Your task to perform on an android device: allow cookies in the chrome app Image 0: 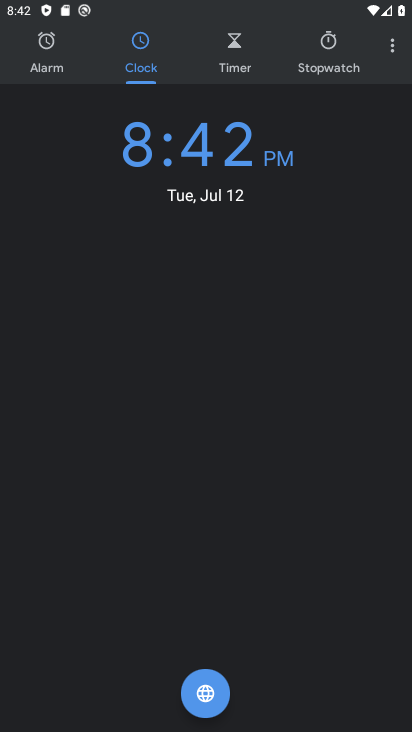
Step 0: press home button
Your task to perform on an android device: allow cookies in the chrome app Image 1: 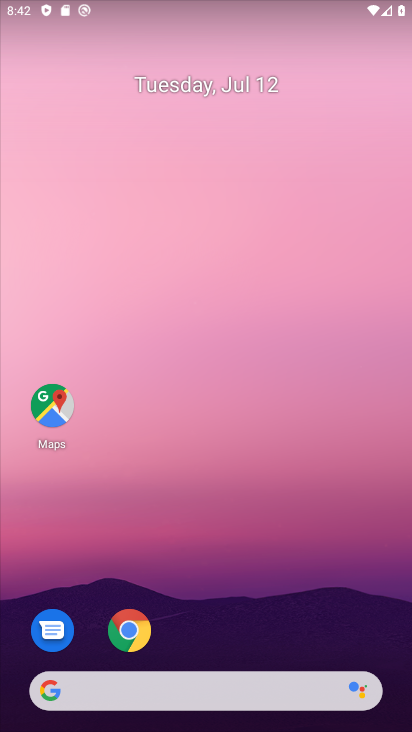
Step 1: click (134, 634)
Your task to perform on an android device: allow cookies in the chrome app Image 2: 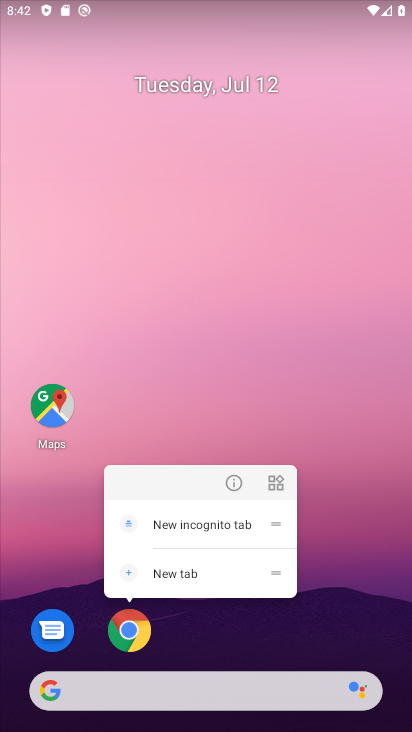
Step 2: click (127, 629)
Your task to perform on an android device: allow cookies in the chrome app Image 3: 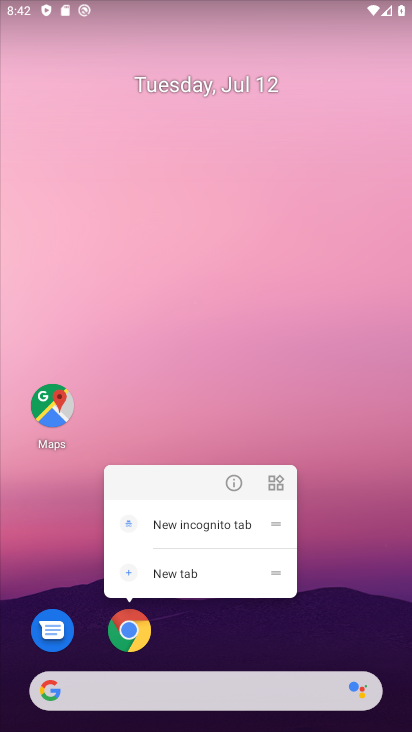
Step 3: click (134, 626)
Your task to perform on an android device: allow cookies in the chrome app Image 4: 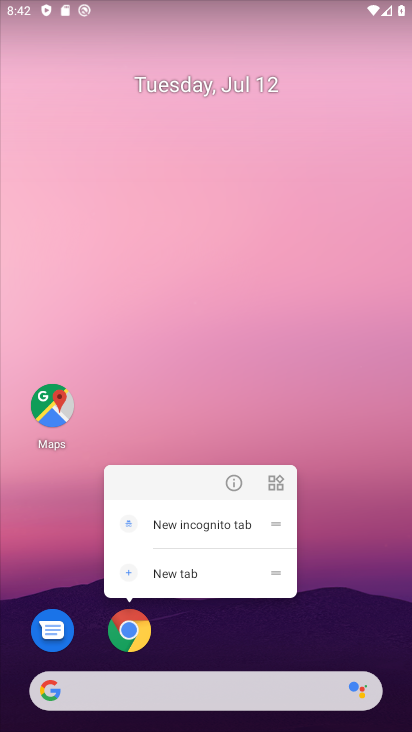
Step 4: click (134, 626)
Your task to perform on an android device: allow cookies in the chrome app Image 5: 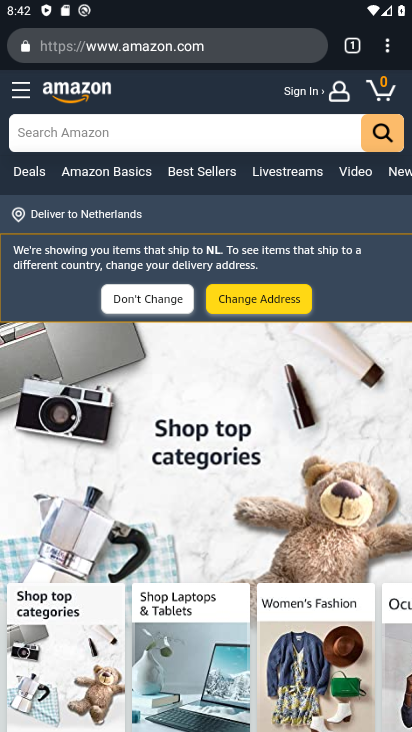
Step 5: drag from (383, 46) to (217, 556)
Your task to perform on an android device: allow cookies in the chrome app Image 6: 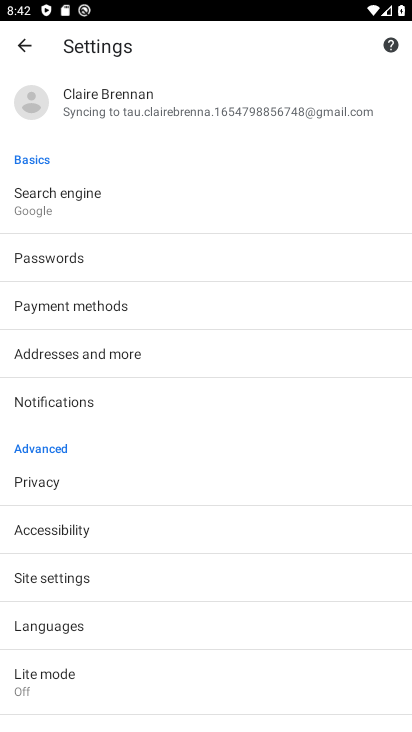
Step 6: click (66, 585)
Your task to perform on an android device: allow cookies in the chrome app Image 7: 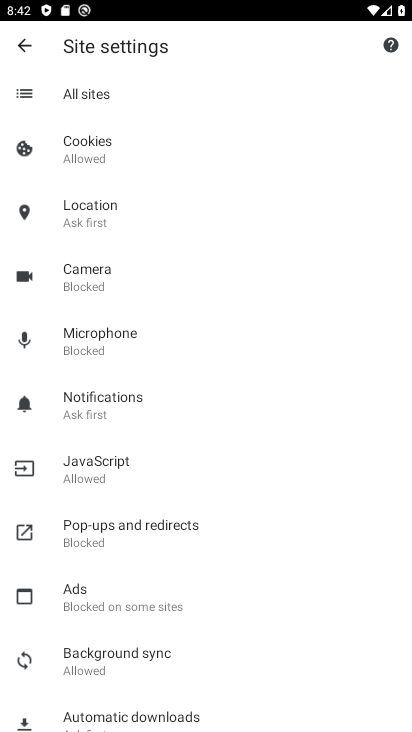
Step 7: click (83, 137)
Your task to perform on an android device: allow cookies in the chrome app Image 8: 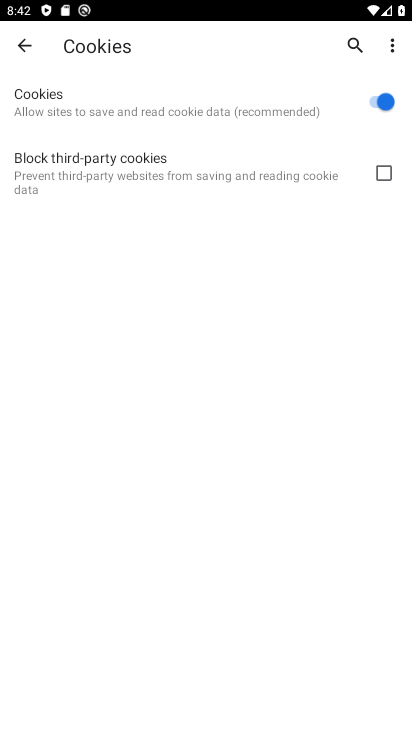
Step 8: task complete